Your task to perform on an android device: delete location history Image 0: 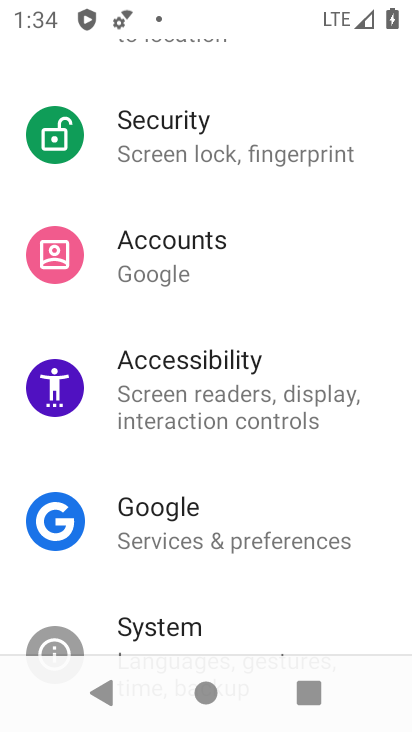
Step 0: press home button
Your task to perform on an android device: delete location history Image 1: 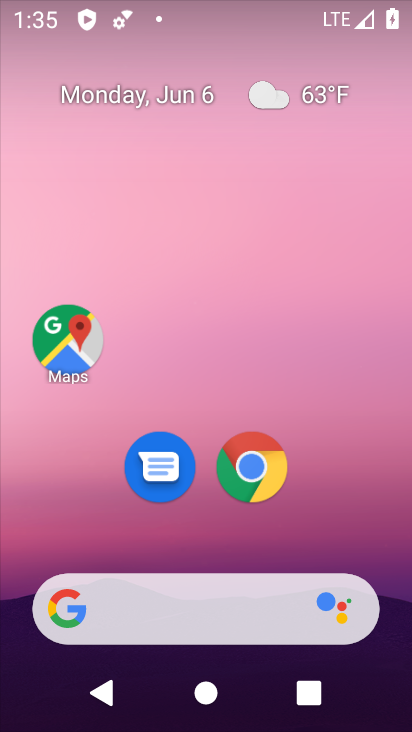
Step 1: drag from (392, 610) to (236, 227)
Your task to perform on an android device: delete location history Image 2: 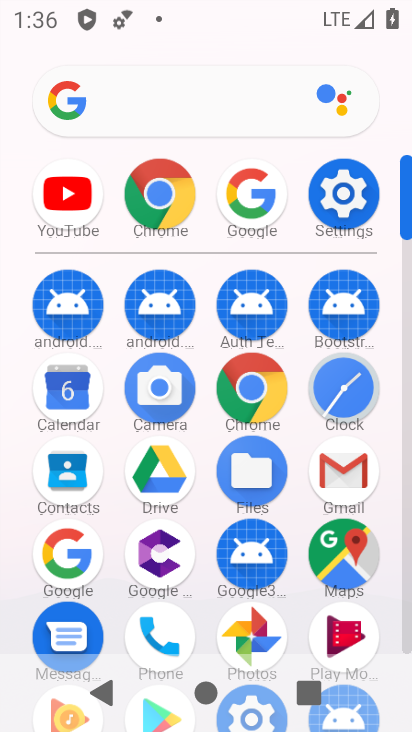
Step 2: click (360, 194)
Your task to perform on an android device: delete location history Image 3: 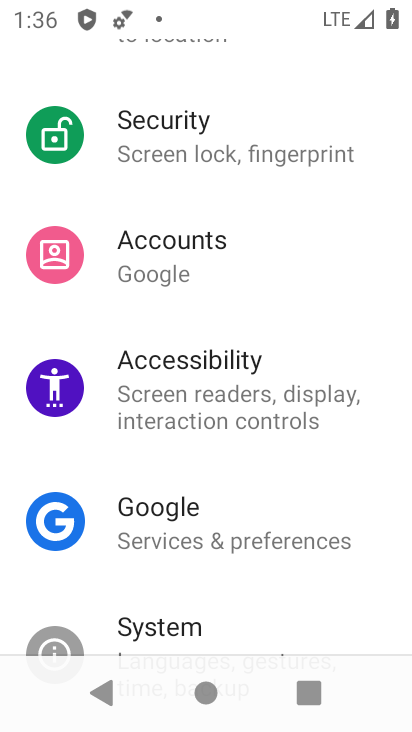
Step 3: drag from (146, 185) to (224, 624)
Your task to perform on an android device: delete location history Image 4: 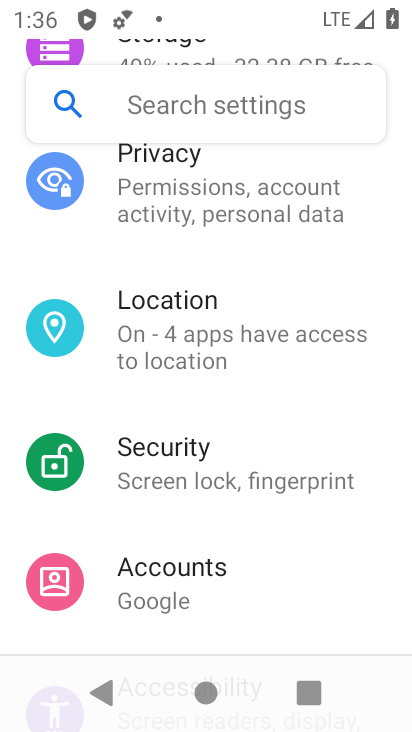
Step 4: click (212, 338)
Your task to perform on an android device: delete location history Image 5: 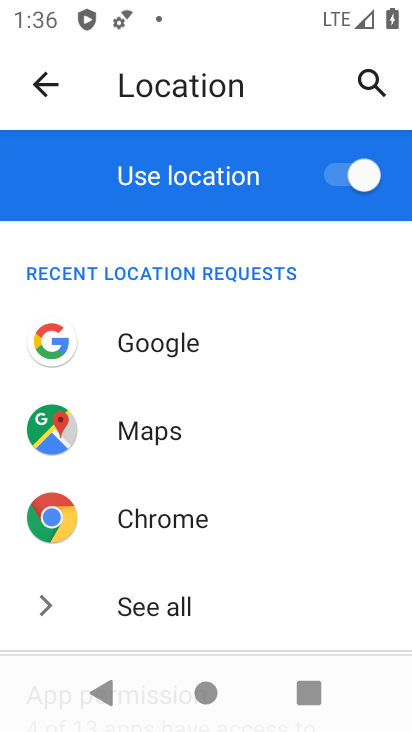
Step 5: drag from (300, 431) to (259, 87)
Your task to perform on an android device: delete location history Image 6: 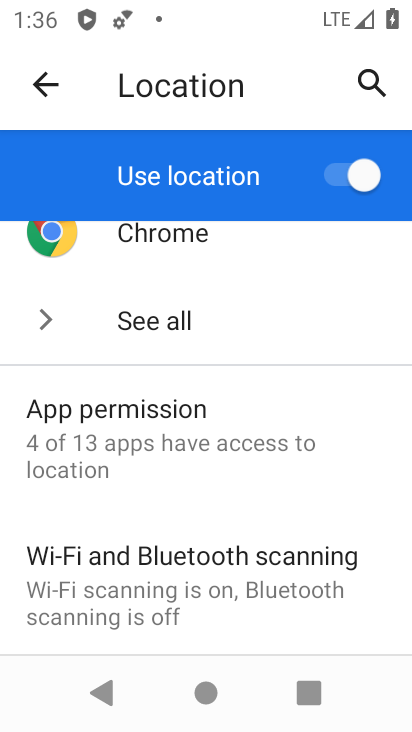
Step 6: drag from (121, 607) to (229, 190)
Your task to perform on an android device: delete location history Image 7: 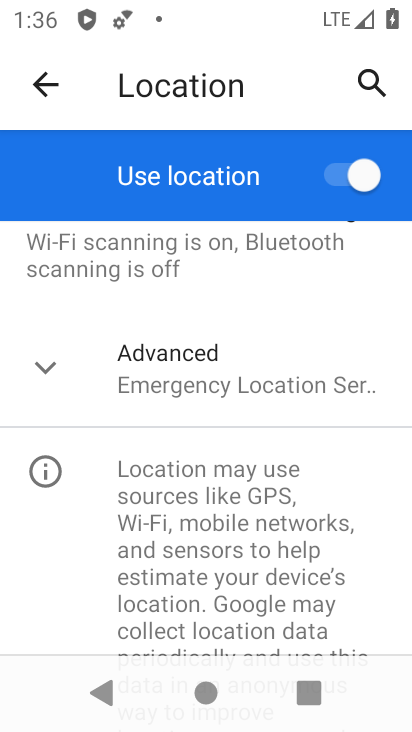
Step 7: click (219, 388)
Your task to perform on an android device: delete location history Image 8: 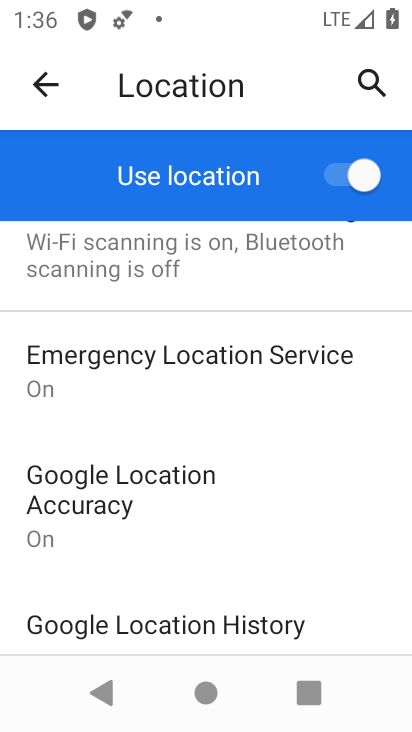
Step 8: click (160, 621)
Your task to perform on an android device: delete location history Image 9: 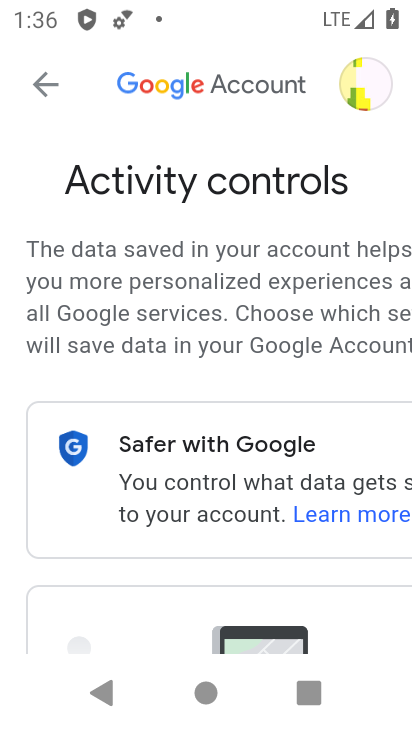
Step 9: drag from (360, 616) to (221, 110)
Your task to perform on an android device: delete location history Image 10: 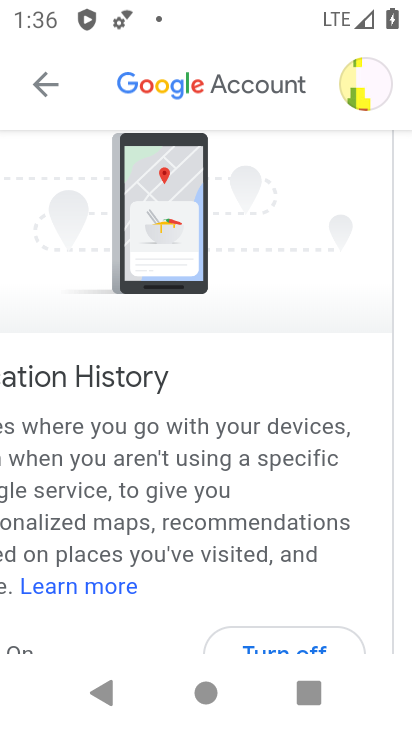
Step 10: drag from (318, 544) to (313, 90)
Your task to perform on an android device: delete location history Image 11: 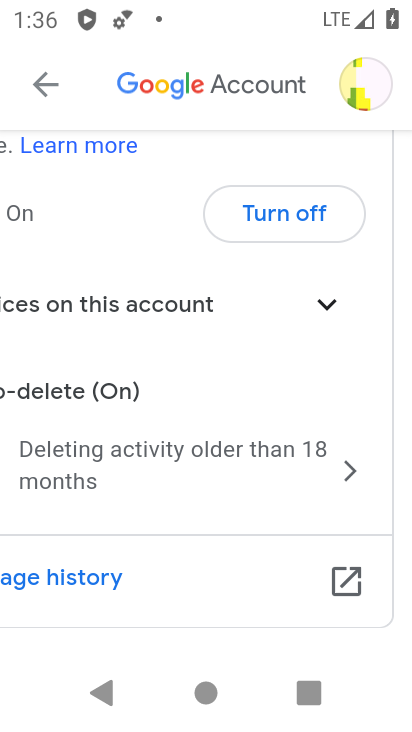
Step 11: click (217, 449)
Your task to perform on an android device: delete location history Image 12: 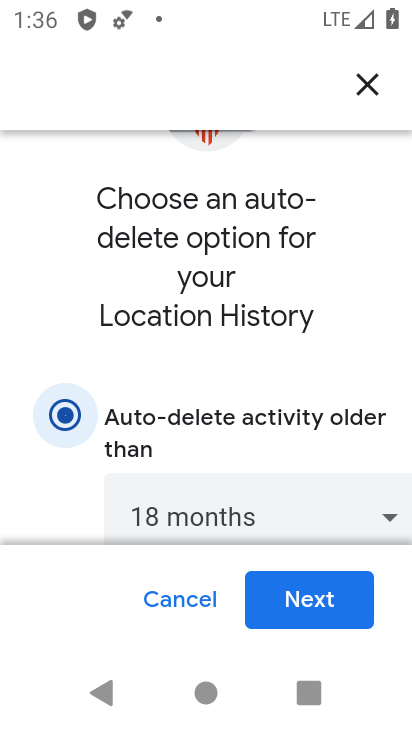
Step 12: click (320, 588)
Your task to perform on an android device: delete location history Image 13: 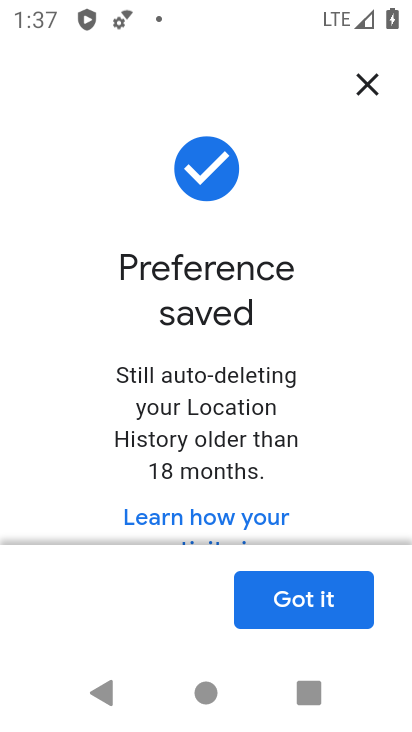
Step 13: click (307, 598)
Your task to perform on an android device: delete location history Image 14: 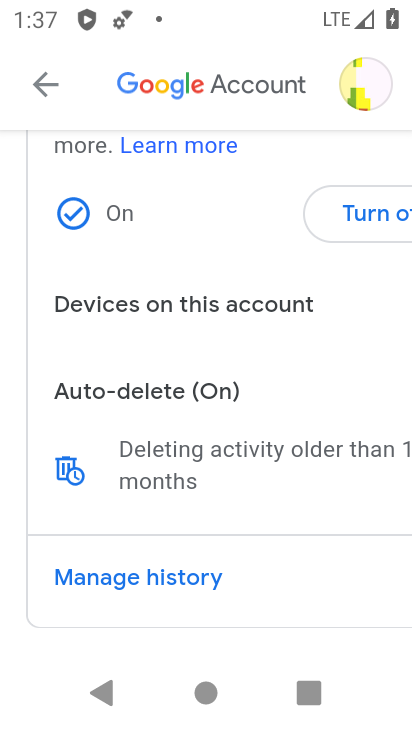
Step 14: task complete